Your task to perform on an android device: uninstall "Paramount+ | Peak Streaming" Image 0: 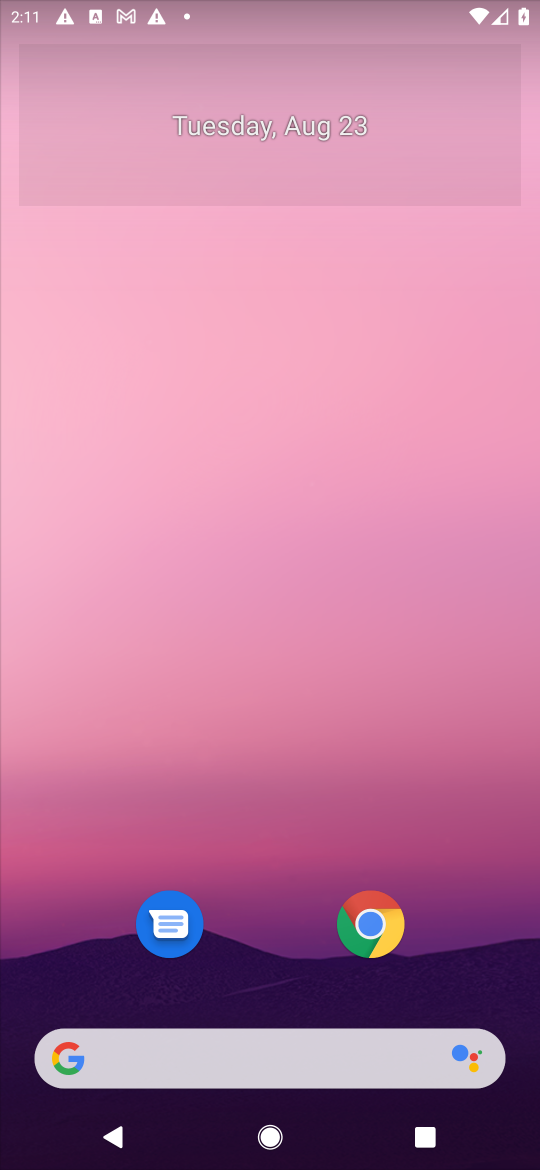
Step 0: press home button
Your task to perform on an android device: uninstall "Paramount+ | Peak Streaming" Image 1: 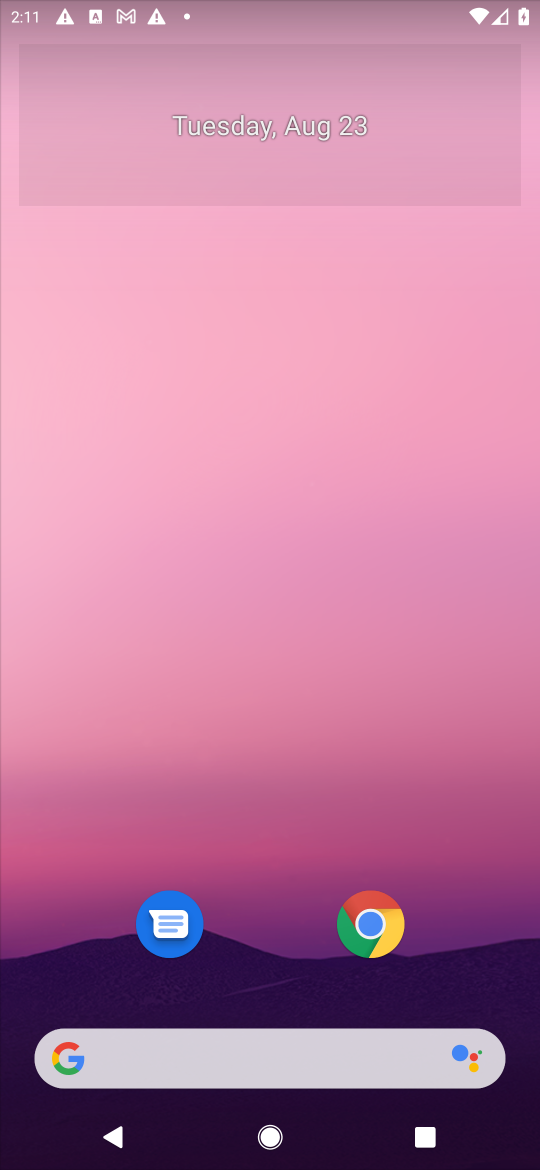
Step 1: drag from (487, 901) to (404, 144)
Your task to perform on an android device: uninstall "Paramount+ | Peak Streaming" Image 2: 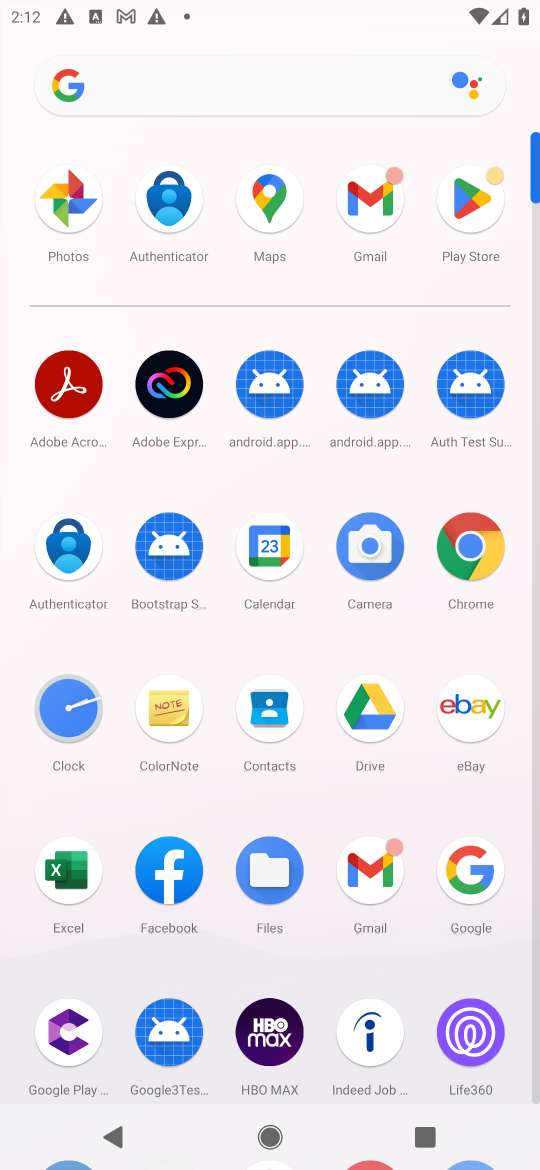
Step 2: click (468, 188)
Your task to perform on an android device: uninstall "Paramount+ | Peak Streaming" Image 3: 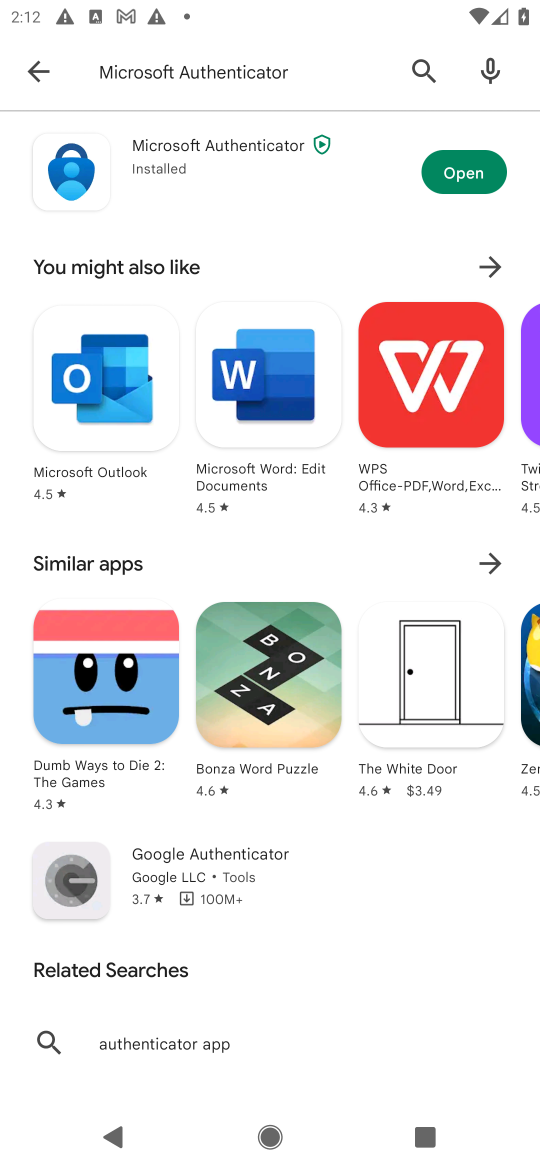
Step 3: press back button
Your task to perform on an android device: uninstall "Paramount+ | Peak Streaming" Image 4: 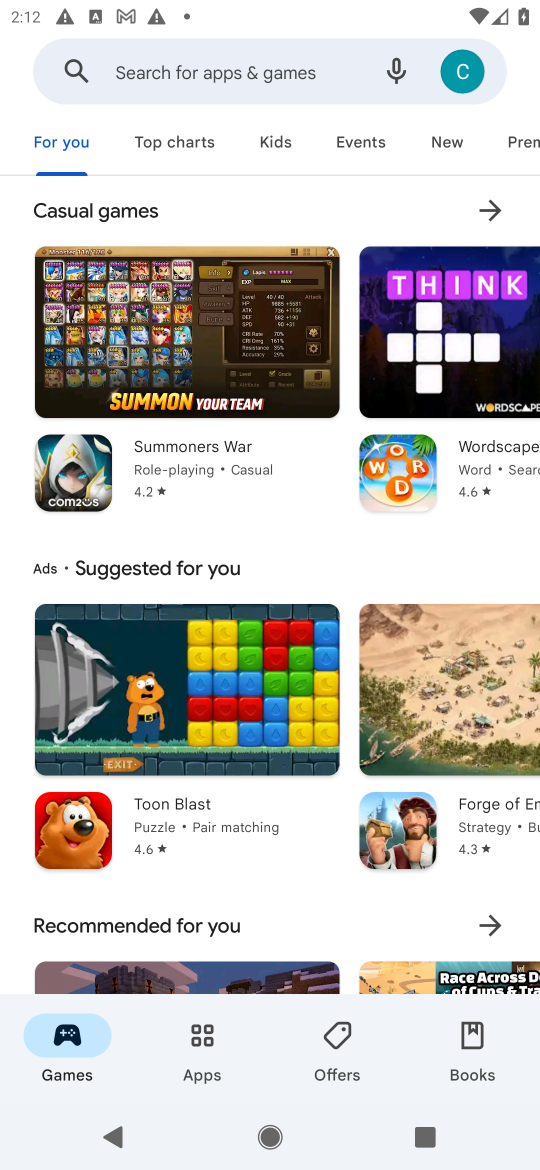
Step 4: click (267, 63)
Your task to perform on an android device: uninstall "Paramount+ | Peak Streaming" Image 5: 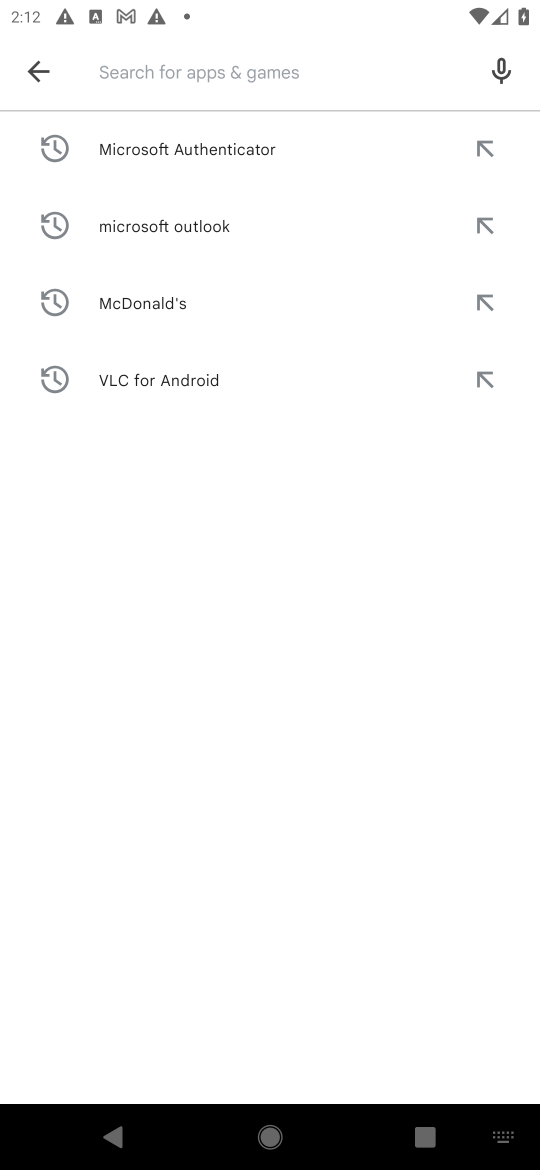
Step 5: type "Paramount+ | Peak Streaming"
Your task to perform on an android device: uninstall "Paramount+ | Peak Streaming" Image 6: 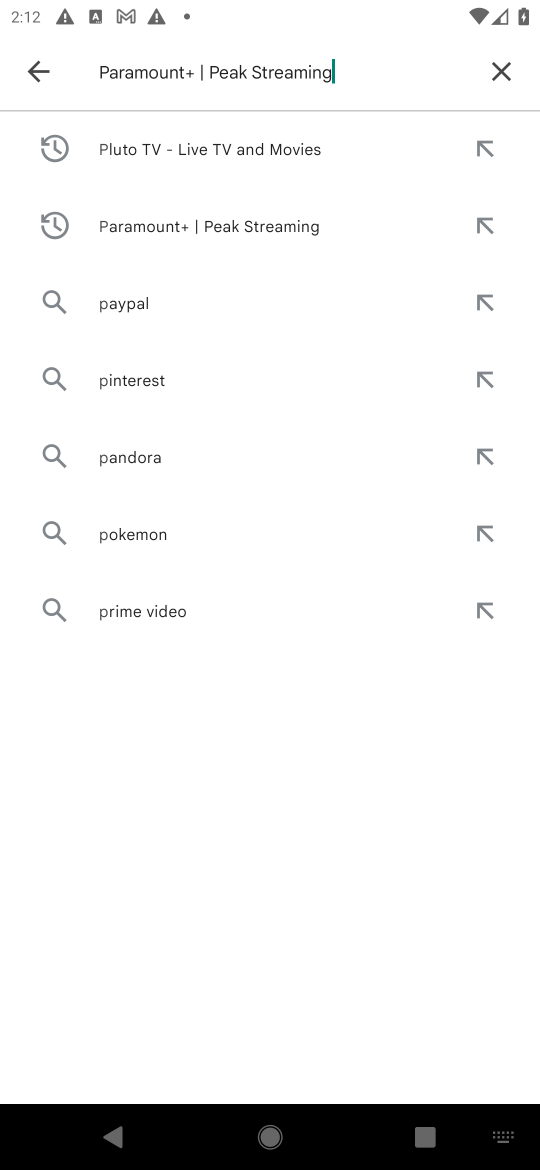
Step 6: press enter
Your task to perform on an android device: uninstall "Paramount+ | Peak Streaming" Image 7: 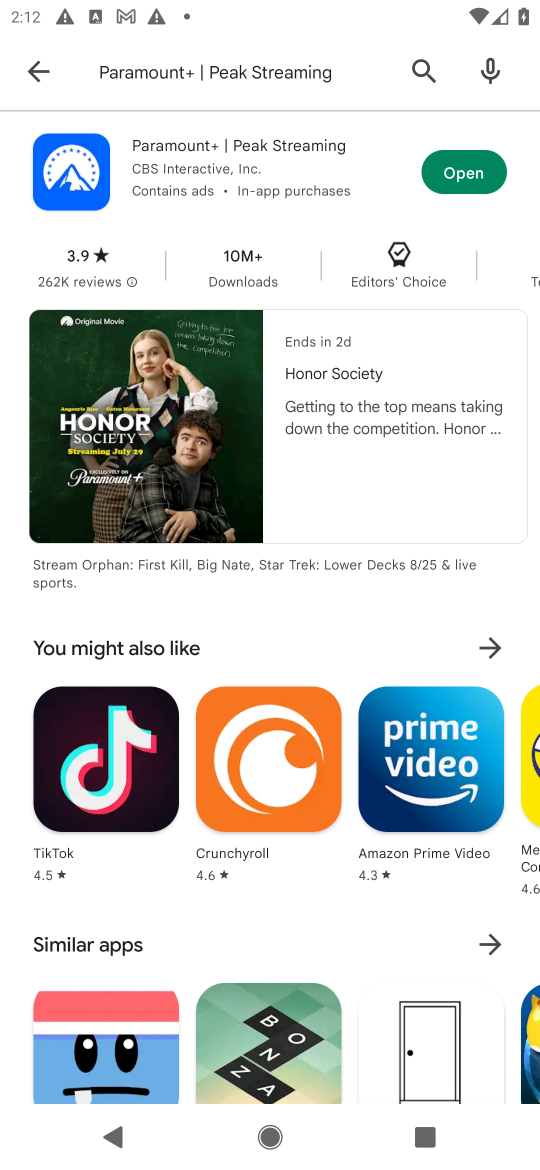
Step 7: task complete